Your task to perform on an android device: turn off wifi Image 0: 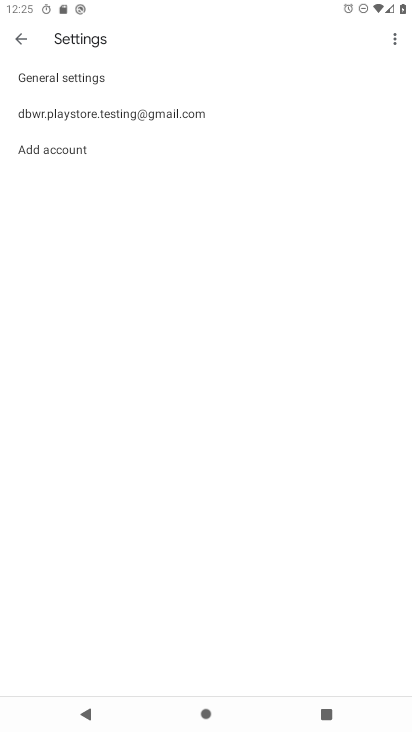
Step 0: press home button
Your task to perform on an android device: turn off wifi Image 1: 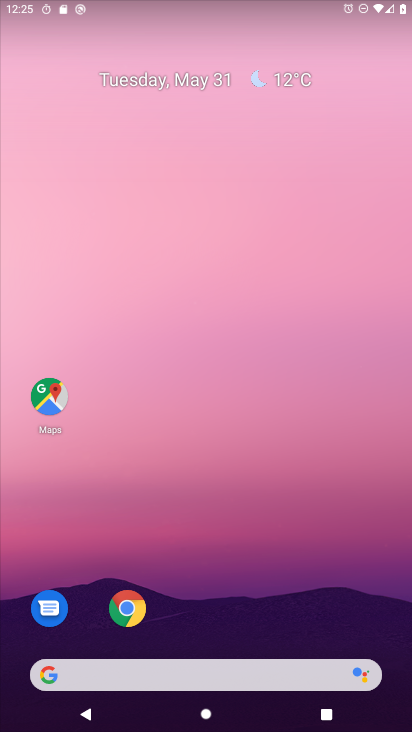
Step 1: drag from (303, 585) to (345, 1)
Your task to perform on an android device: turn off wifi Image 2: 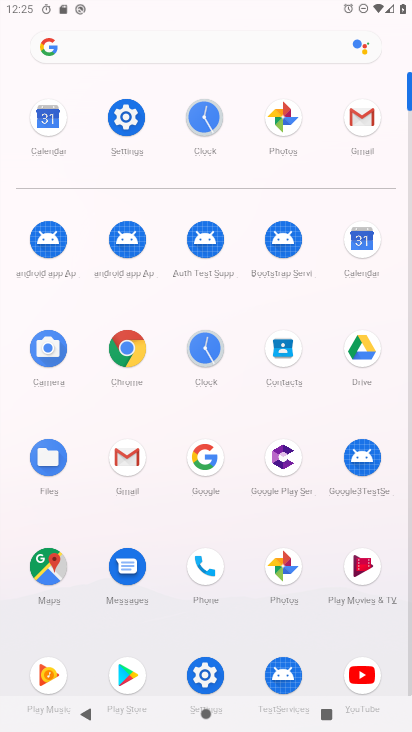
Step 2: click (122, 118)
Your task to perform on an android device: turn off wifi Image 3: 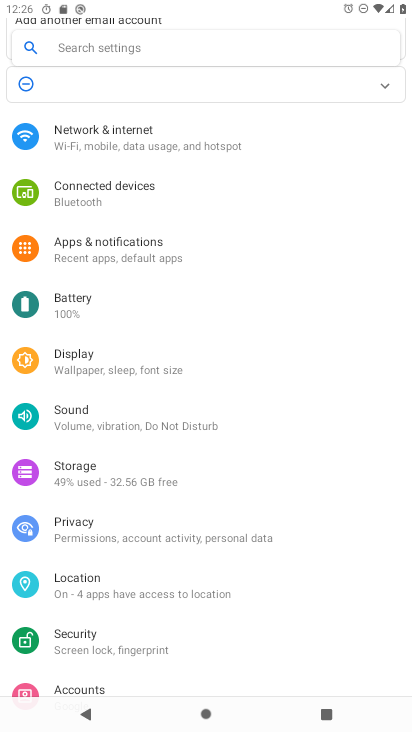
Step 3: click (108, 140)
Your task to perform on an android device: turn off wifi Image 4: 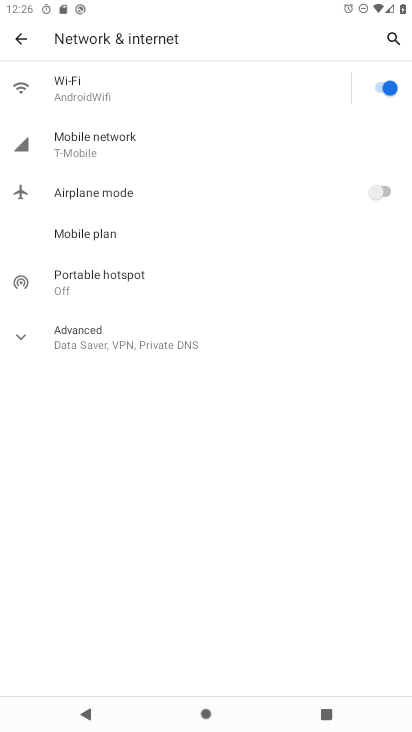
Step 4: click (396, 87)
Your task to perform on an android device: turn off wifi Image 5: 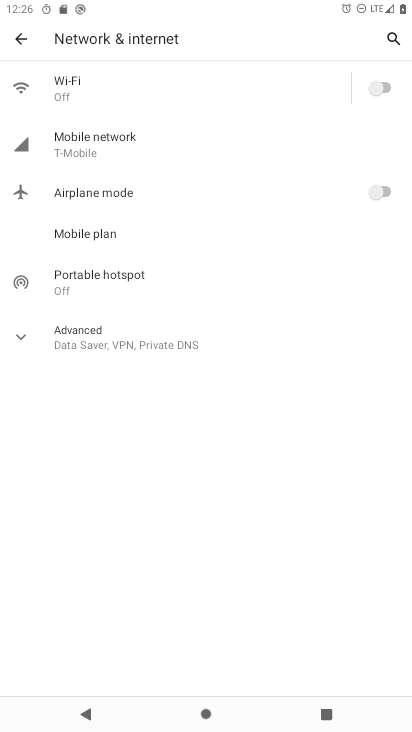
Step 5: task complete